Your task to perform on an android device: Open calendar and show me the first week of next month Image 0: 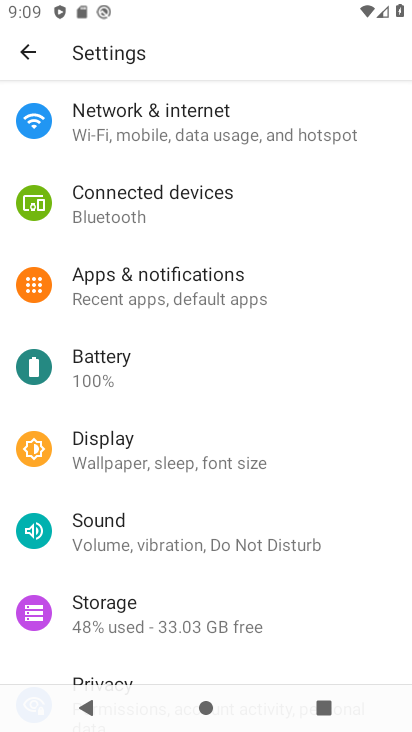
Step 0: press home button
Your task to perform on an android device: Open calendar and show me the first week of next month Image 1: 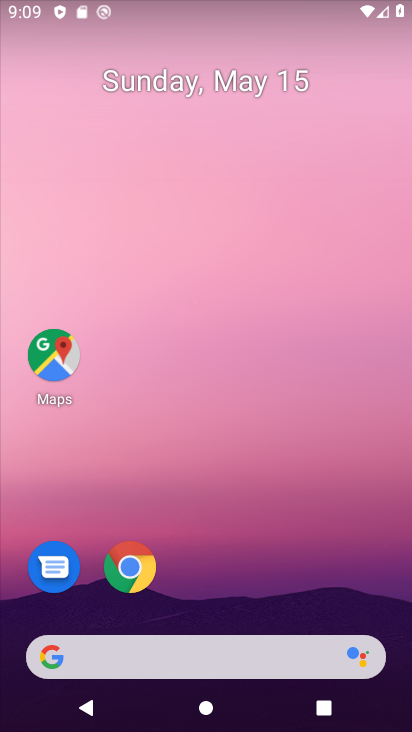
Step 1: drag from (240, 585) to (310, 71)
Your task to perform on an android device: Open calendar and show me the first week of next month Image 2: 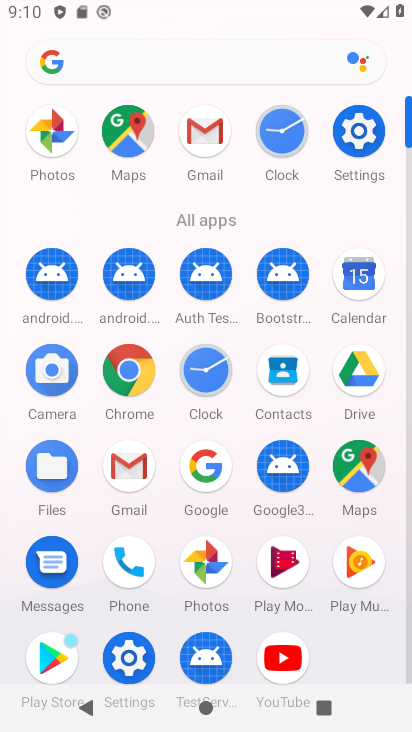
Step 2: click (372, 291)
Your task to perform on an android device: Open calendar and show me the first week of next month Image 3: 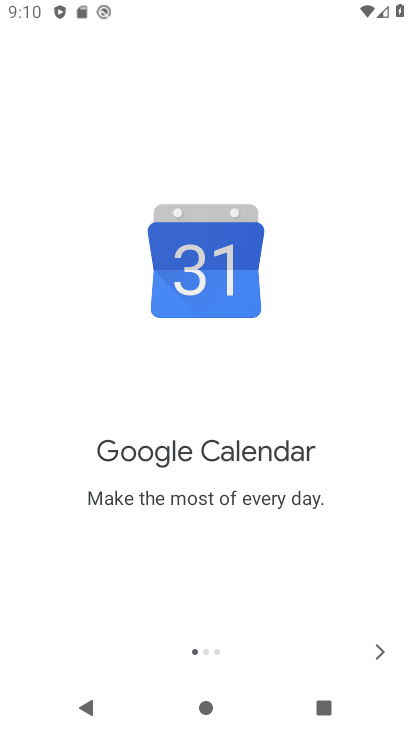
Step 3: click (382, 650)
Your task to perform on an android device: Open calendar and show me the first week of next month Image 4: 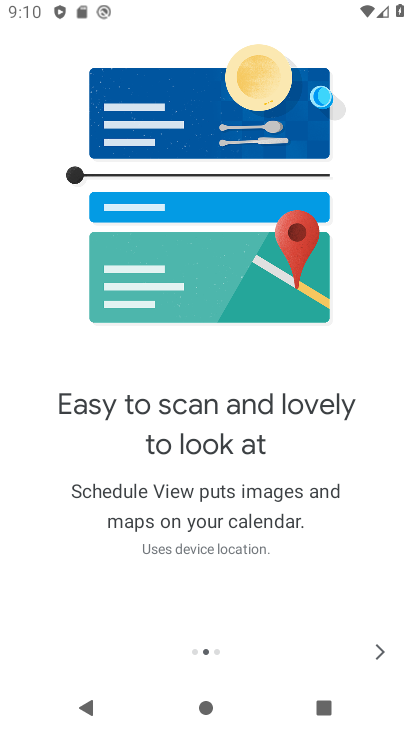
Step 4: click (381, 650)
Your task to perform on an android device: Open calendar and show me the first week of next month Image 5: 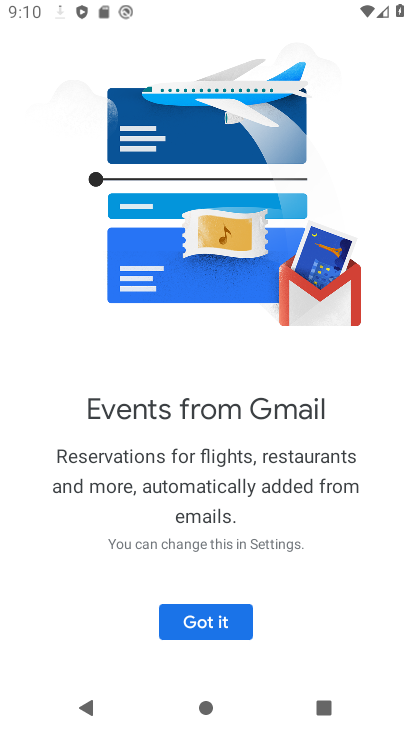
Step 5: click (213, 607)
Your task to perform on an android device: Open calendar and show me the first week of next month Image 6: 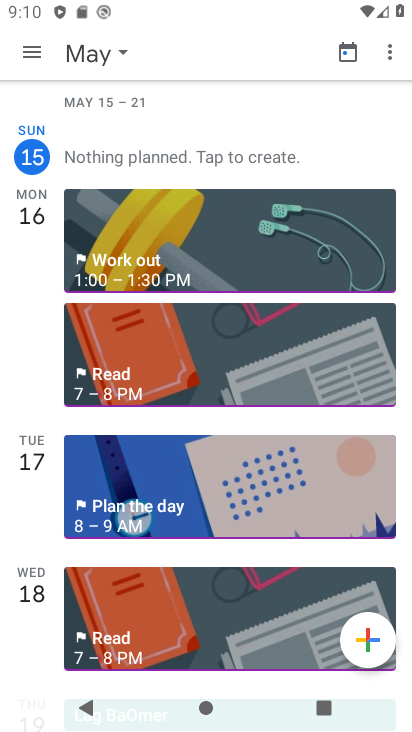
Step 6: click (38, 53)
Your task to perform on an android device: Open calendar and show me the first week of next month Image 7: 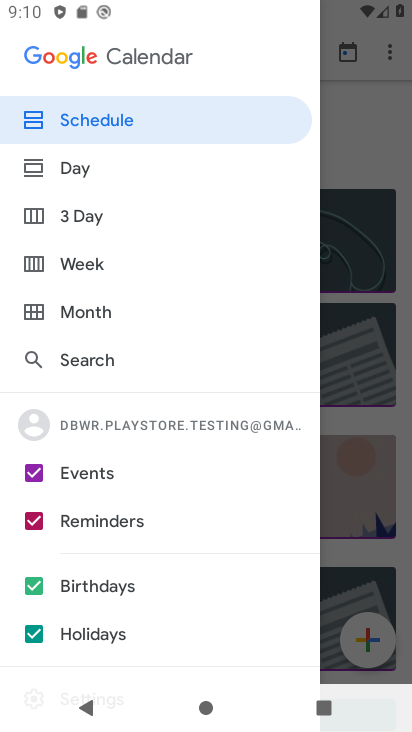
Step 7: click (102, 267)
Your task to perform on an android device: Open calendar and show me the first week of next month Image 8: 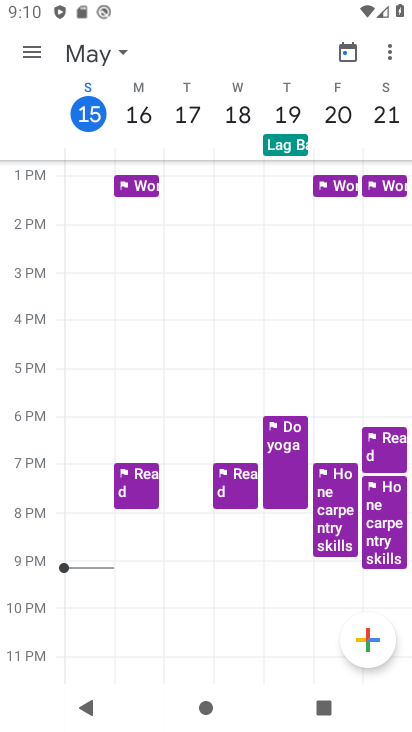
Step 8: click (109, 56)
Your task to perform on an android device: Open calendar and show me the first week of next month Image 9: 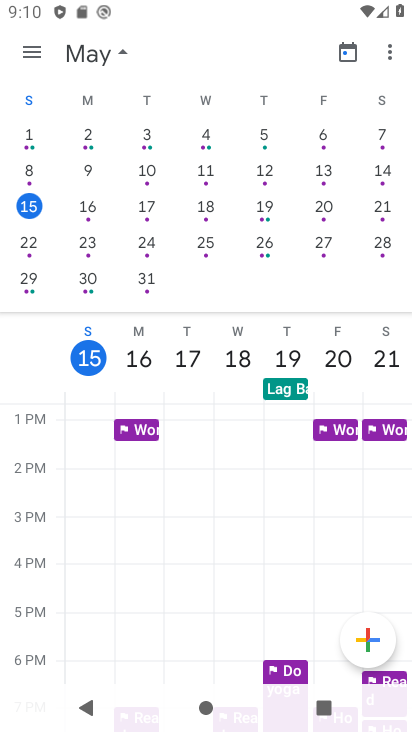
Step 9: drag from (360, 225) to (11, 103)
Your task to perform on an android device: Open calendar and show me the first week of next month Image 10: 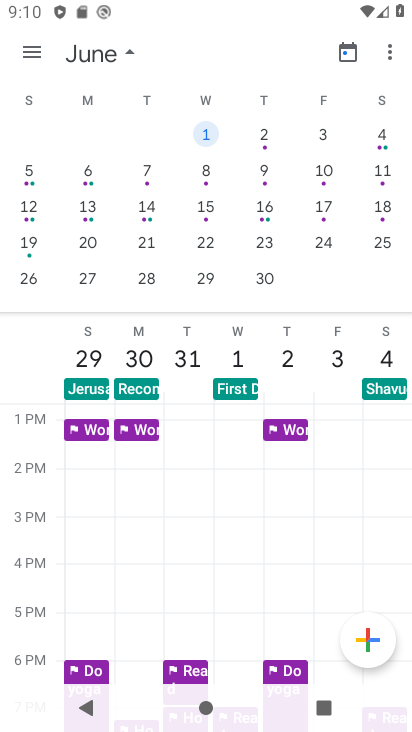
Step 10: click (98, 168)
Your task to perform on an android device: Open calendar and show me the first week of next month Image 11: 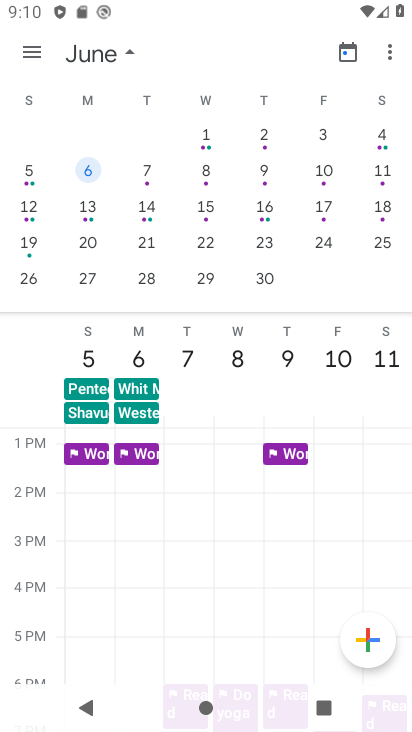
Step 11: task complete